Your task to perform on an android device: allow notifications from all sites in the chrome app Image 0: 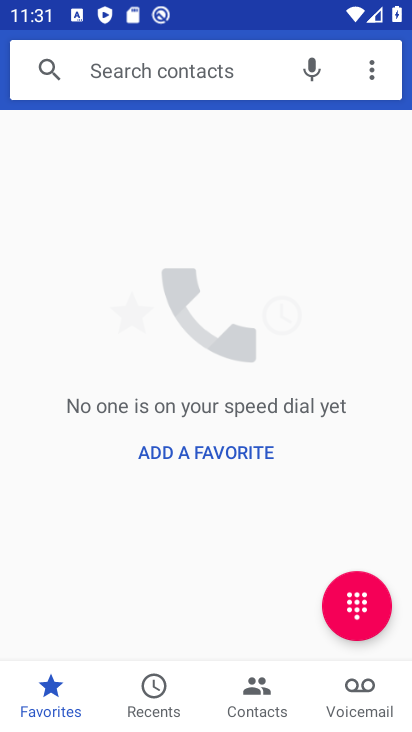
Step 0: press home button
Your task to perform on an android device: allow notifications from all sites in the chrome app Image 1: 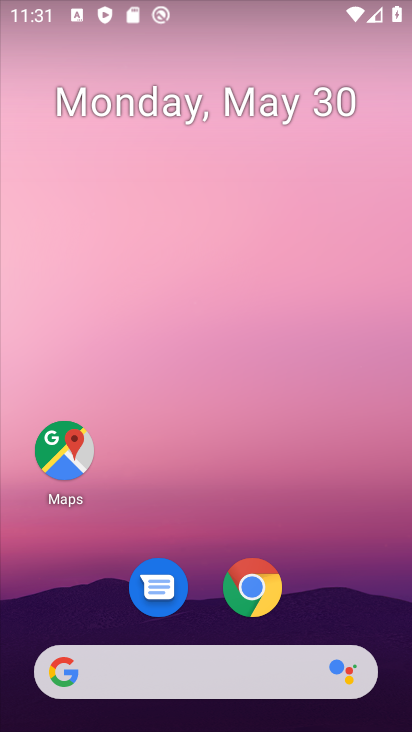
Step 1: click (262, 595)
Your task to perform on an android device: allow notifications from all sites in the chrome app Image 2: 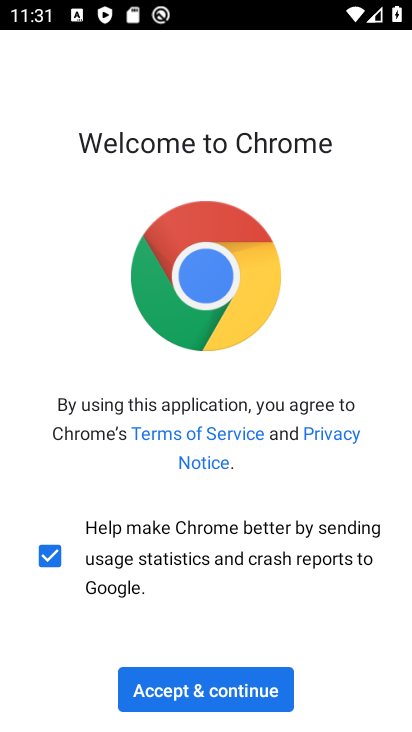
Step 2: click (205, 686)
Your task to perform on an android device: allow notifications from all sites in the chrome app Image 3: 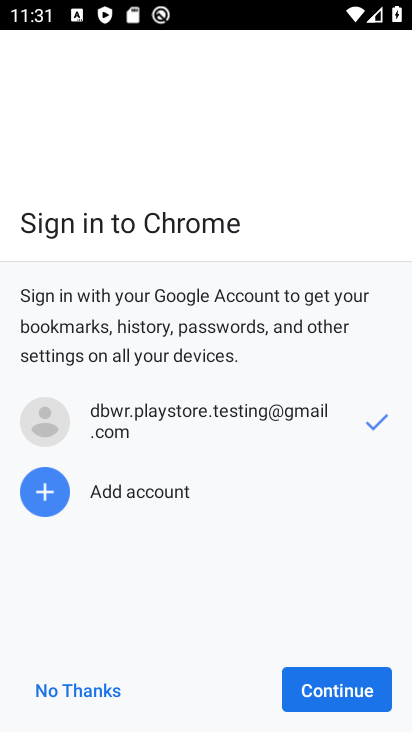
Step 3: click (288, 681)
Your task to perform on an android device: allow notifications from all sites in the chrome app Image 4: 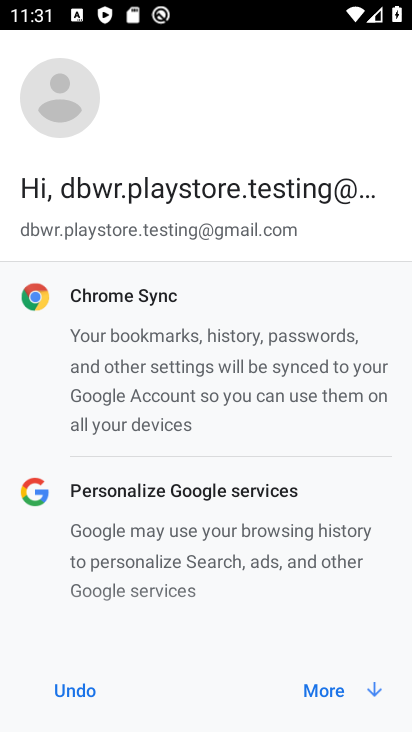
Step 4: click (335, 690)
Your task to perform on an android device: allow notifications from all sites in the chrome app Image 5: 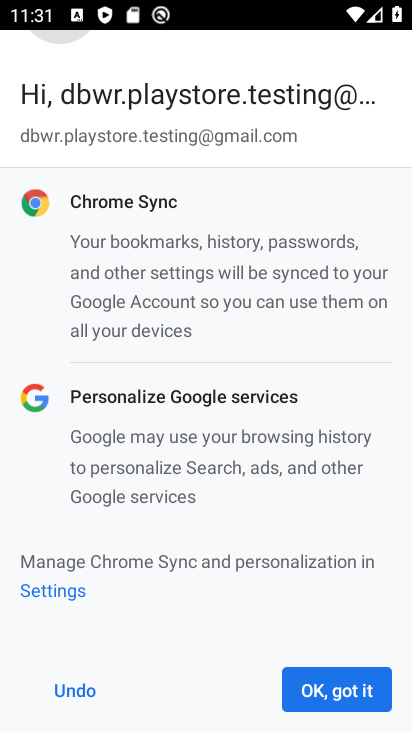
Step 5: click (335, 690)
Your task to perform on an android device: allow notifications from all sites in the chrome app Image 6: 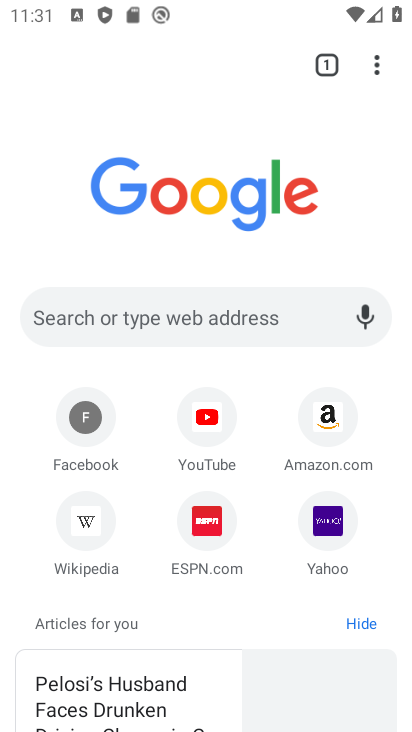
Step 6: click (390, 64)
Your task to perform on an android device: allow notifications from all sites in the chrome app Image 7: 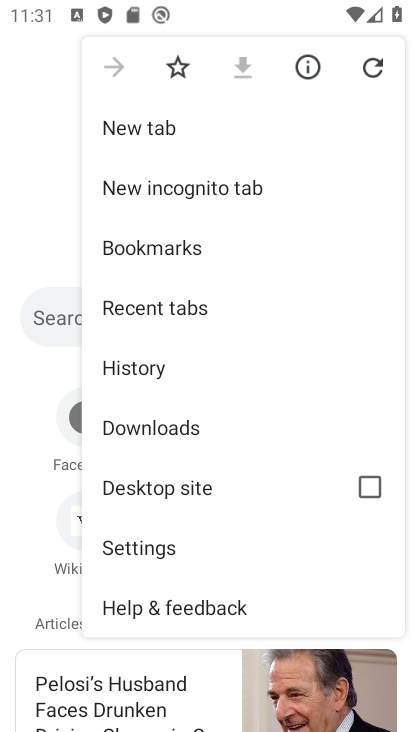
Step 7: click (239, 554)
Your task to perform on an android device: allow notifications from all sites in the chrome app Image 8: 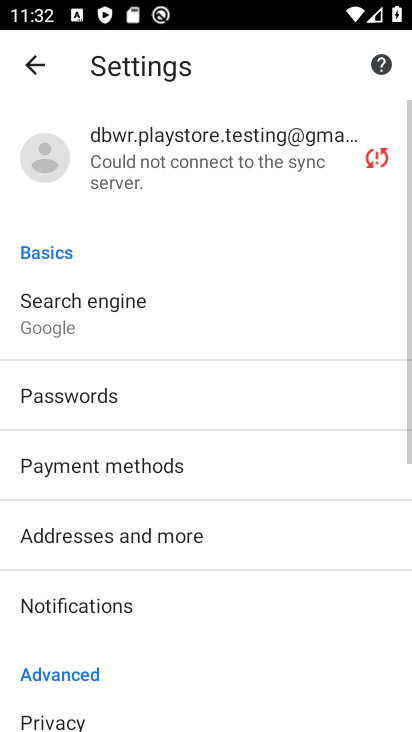
Step 8: drag from (239, 554) to (227, 287)
Your task to perform on an android device: allow notifications from all sites in the chrome app Image 9: 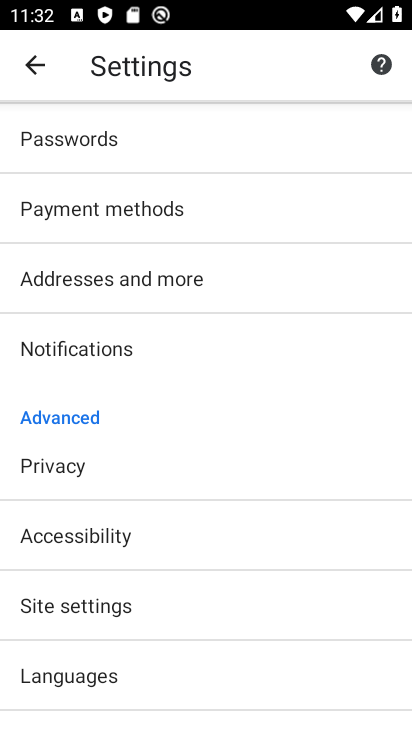
Step 9: click (131, 352)
Your task to perform on an android device: allow notifications from all sites in the chrome app Image 10: 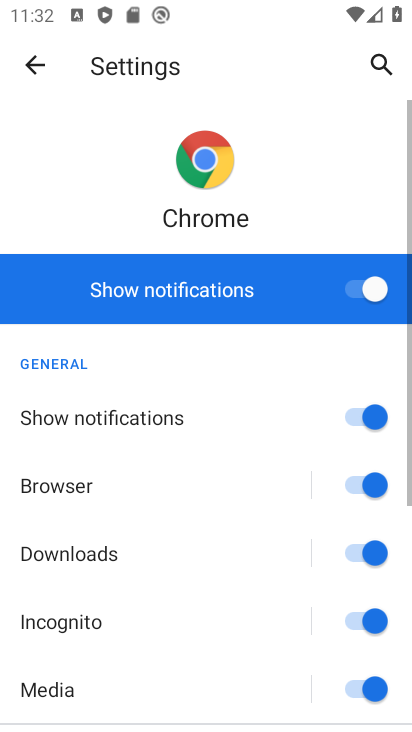
Step 10: task complete